Your task to perform on an android device: Add razer kraken to the cart on bestbuy Image 0: 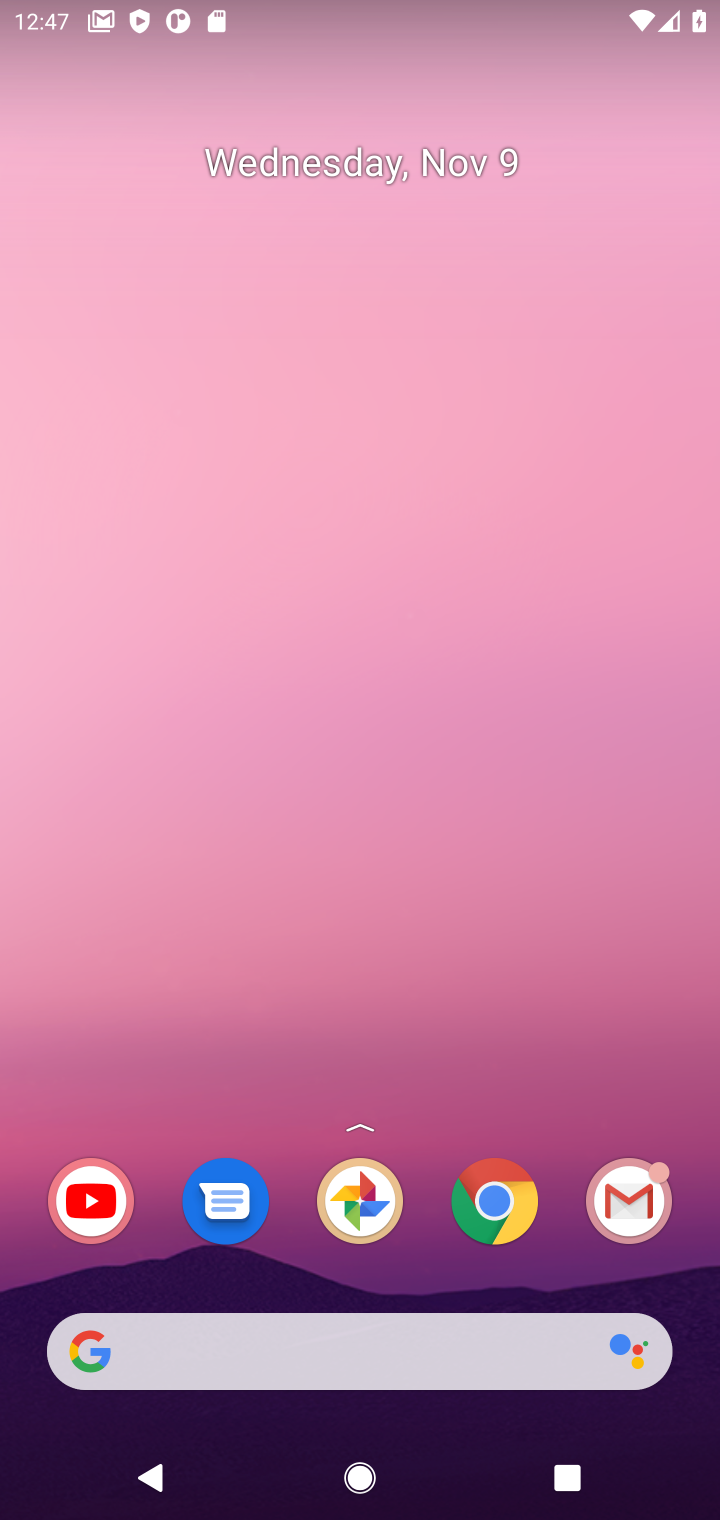
Step 0: click (382, 1352)
Your task to perform on an android device: Add razer kraken to the cart on bestbuy Image 1: 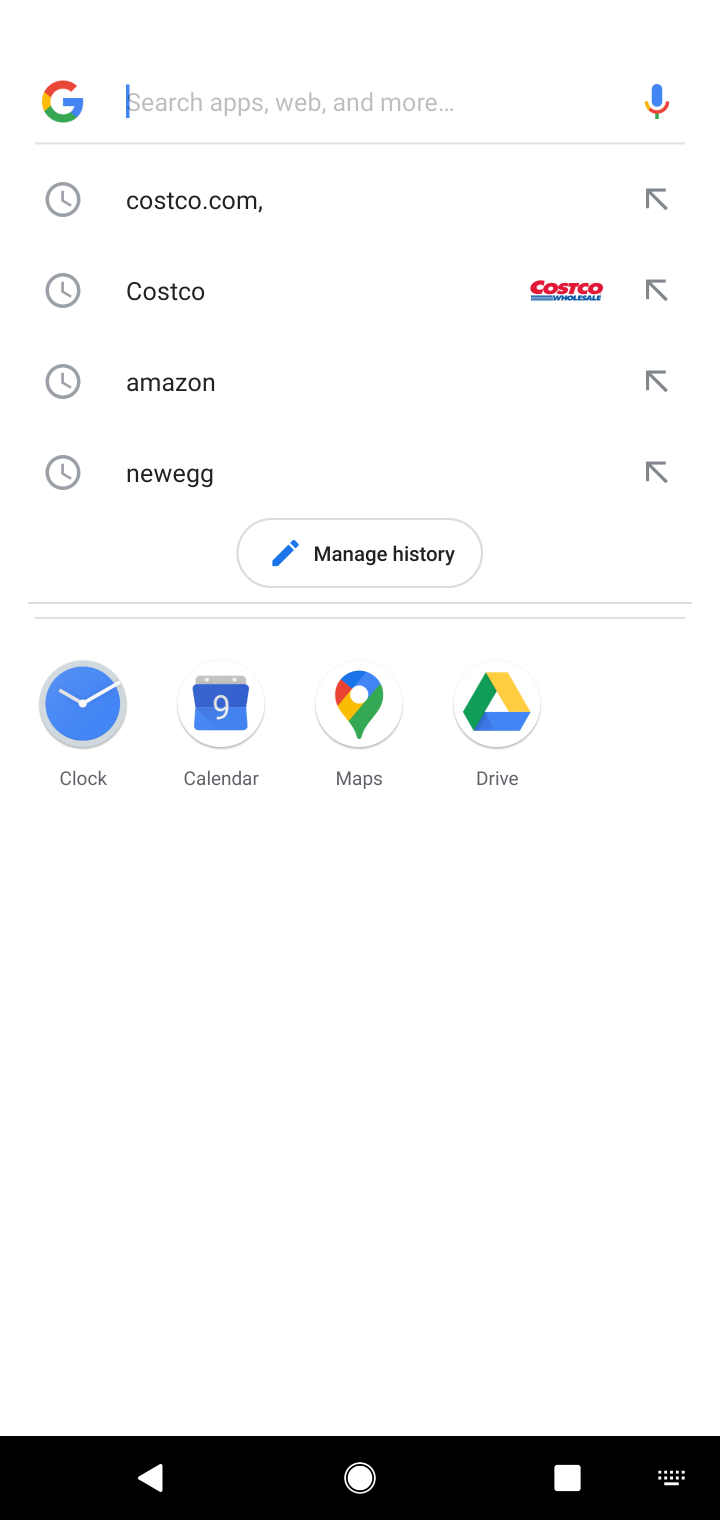
Step 1: type "bestbuy"
Your task to perform on an android device: Add razer kraken to the cart on bestbuy Image 2: 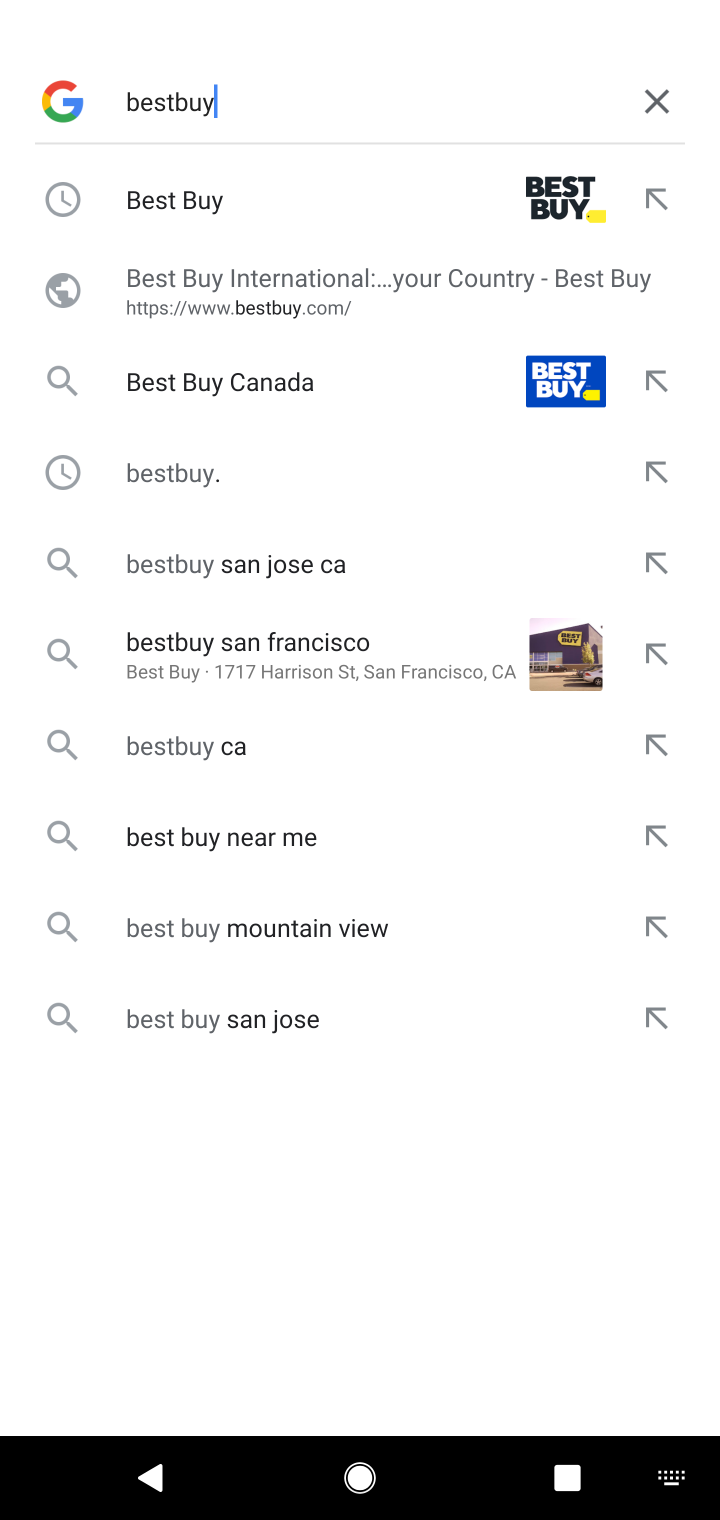
Step 2: click (297, 200)
Your task to perform on an android device: Add razer kraken to the cart on bestbuy Image 3: 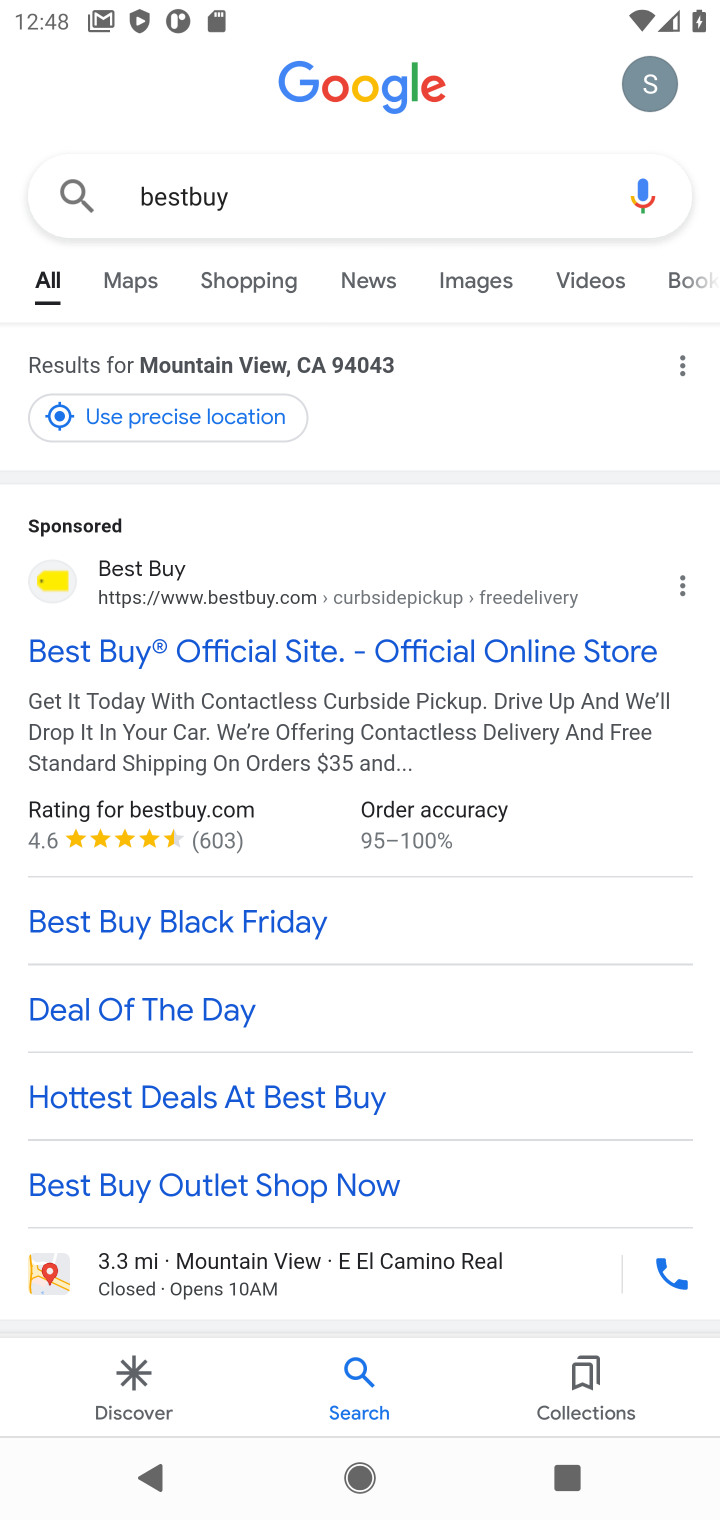
Step 3: click (133, 591)
Your task to perform on an android device: Add razer kraken to the cart on bestbuy Image 4: 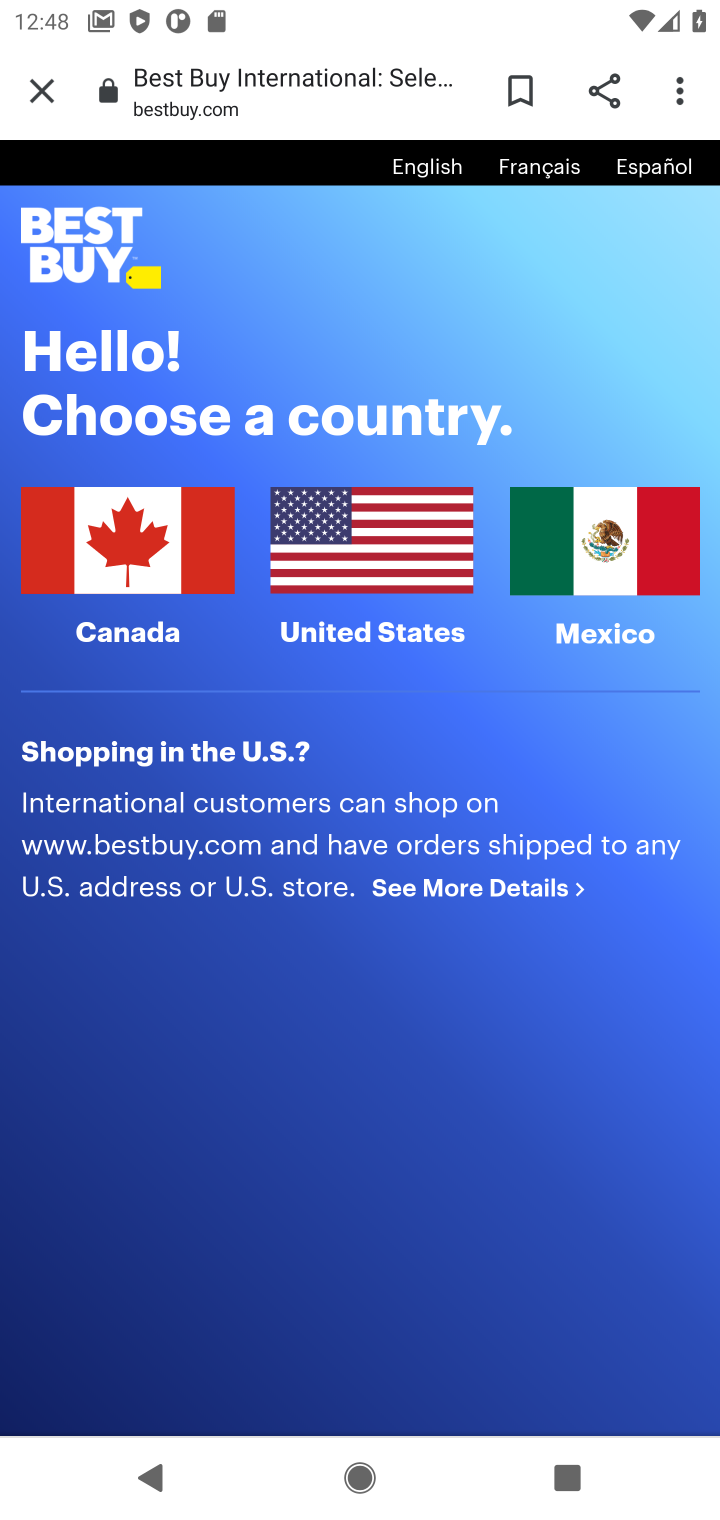
Step 4: click (351, 571)
Your task to perform on an android device: Add razer kraken to the cart on bestbuy Image 5: 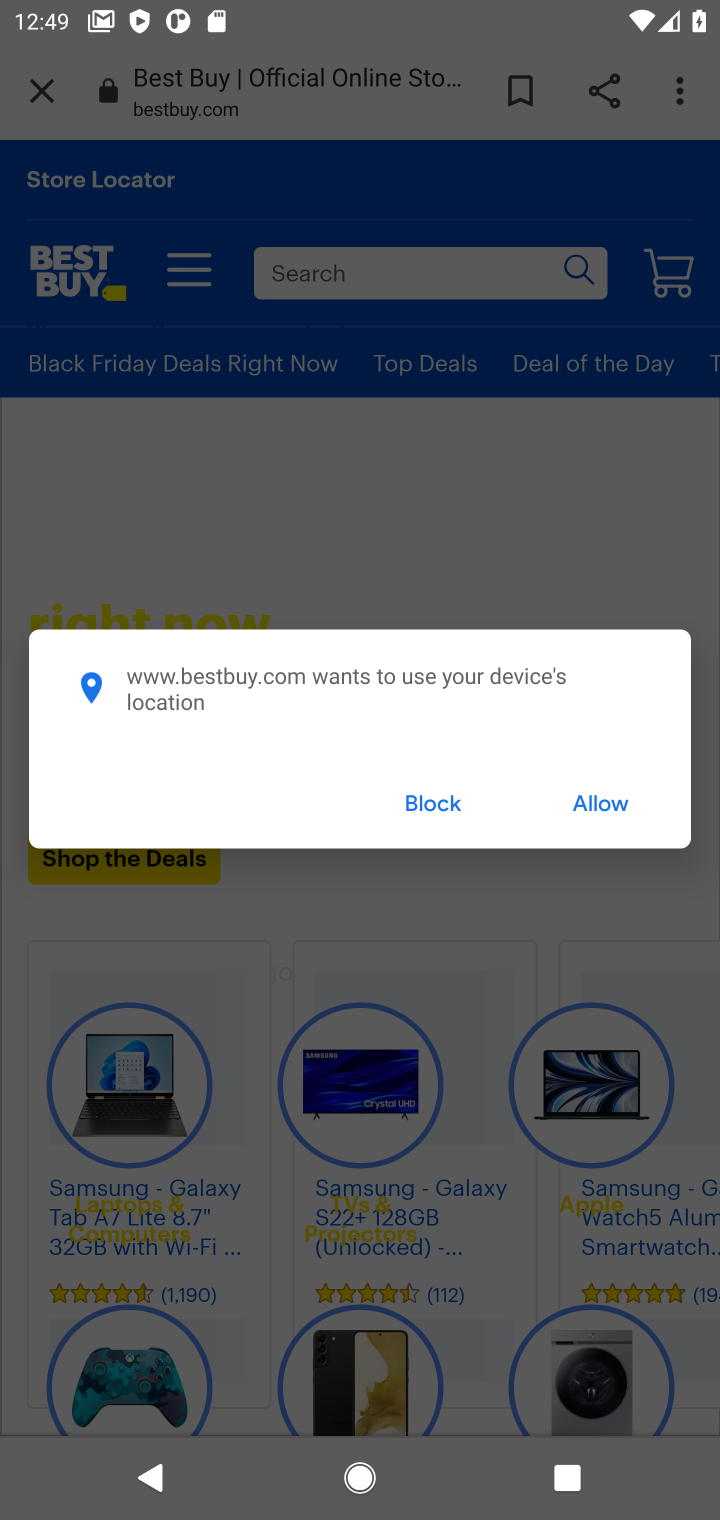
Step 5: click (394, 806)
Your task to perform on an android device: Add razer kraken to the cart on bestbuy Image 6: 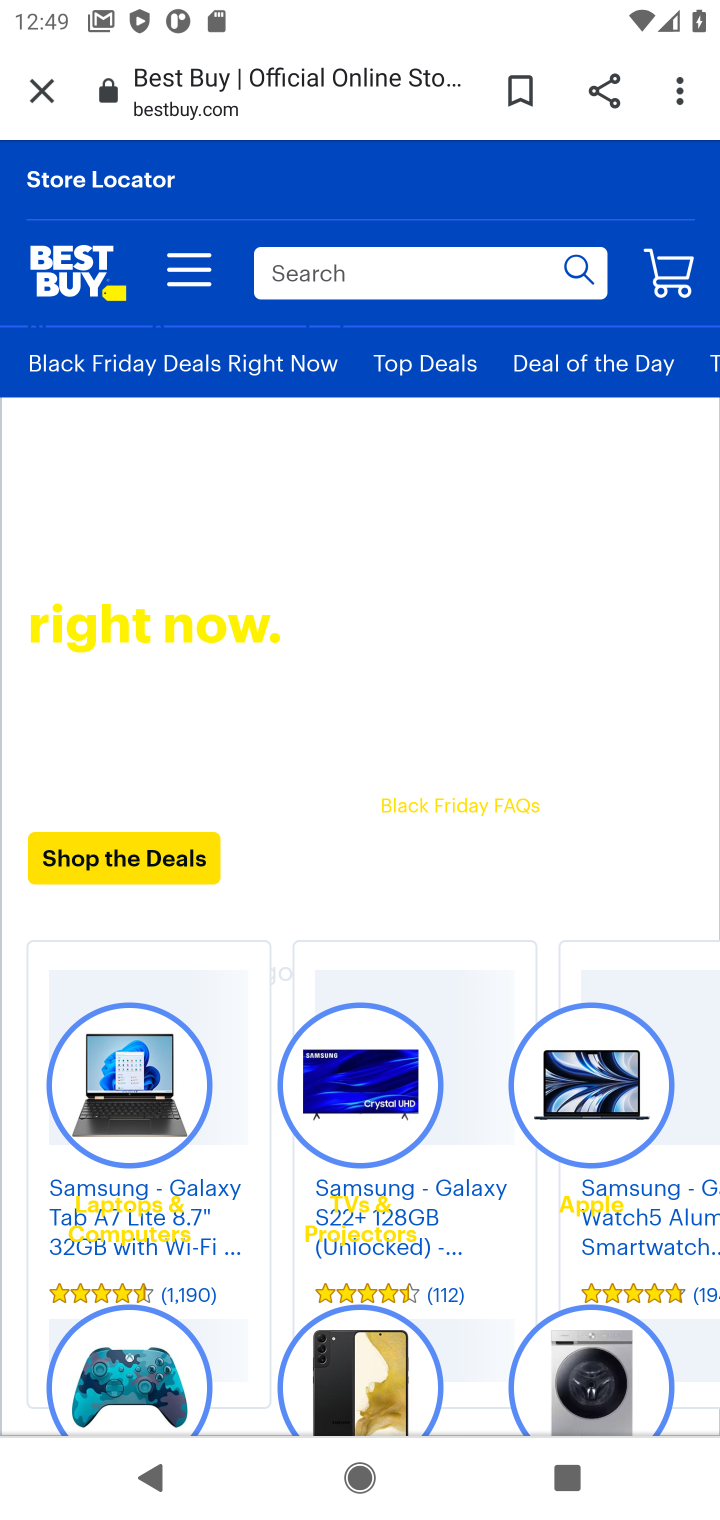
Step 6: click (419, 806)
Your task to perform on an android device: Add razer kraken to the cart on bestbuy Image 7: 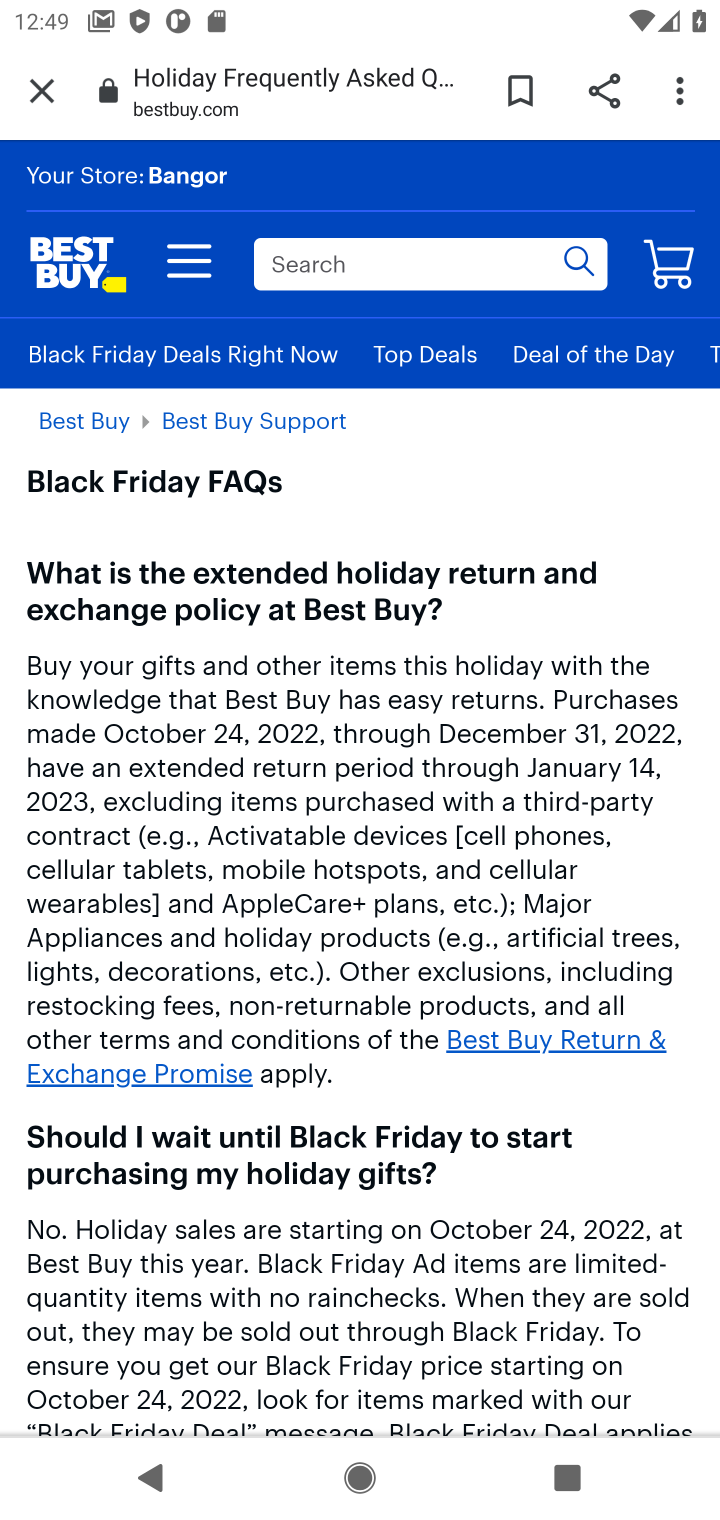
Step 7: click (318, 269)
Your task to perform on an android device: Add razer kraken to the cart on bestbuy Image 8: 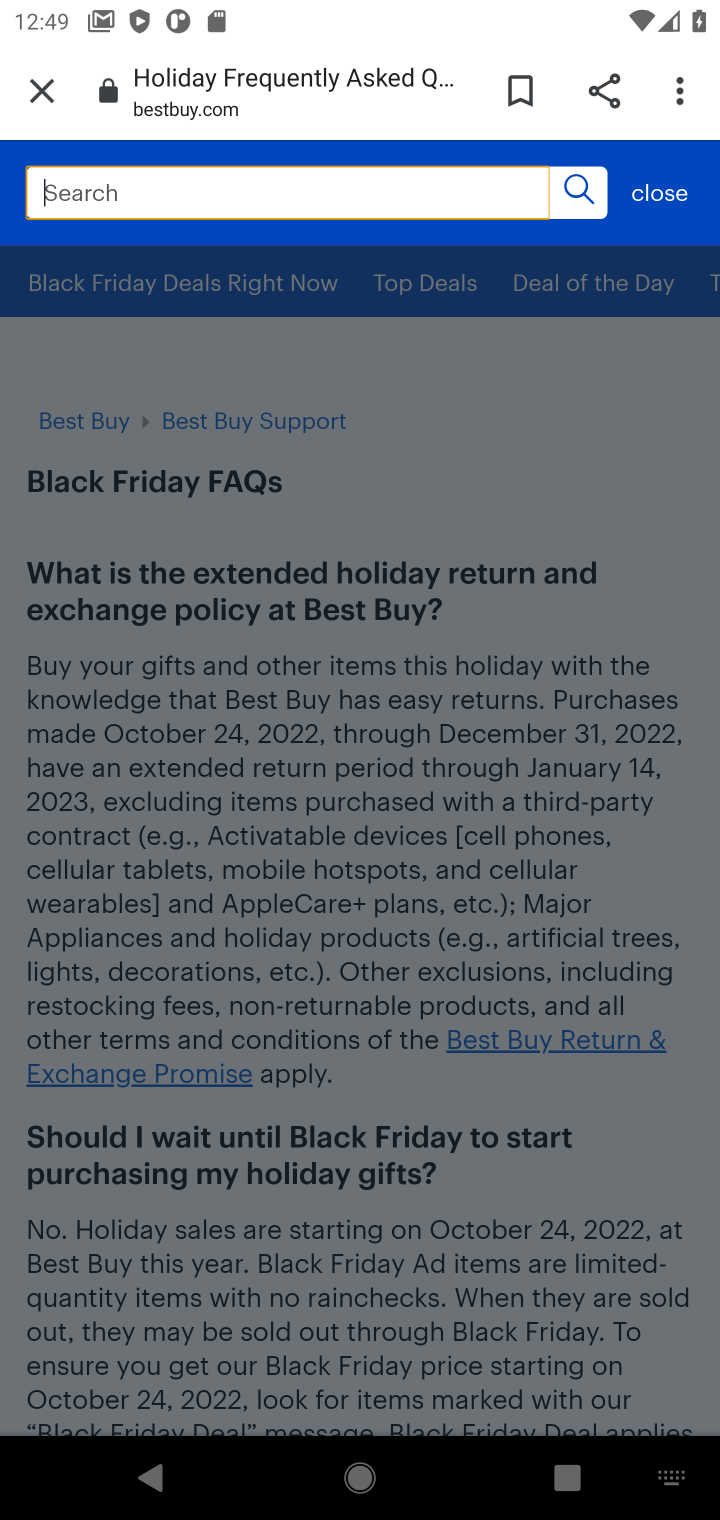
Step 8: type " razer kraken"
Your task to perform on an android device: Add razer kraken to the cart on bestbuy Image 9: 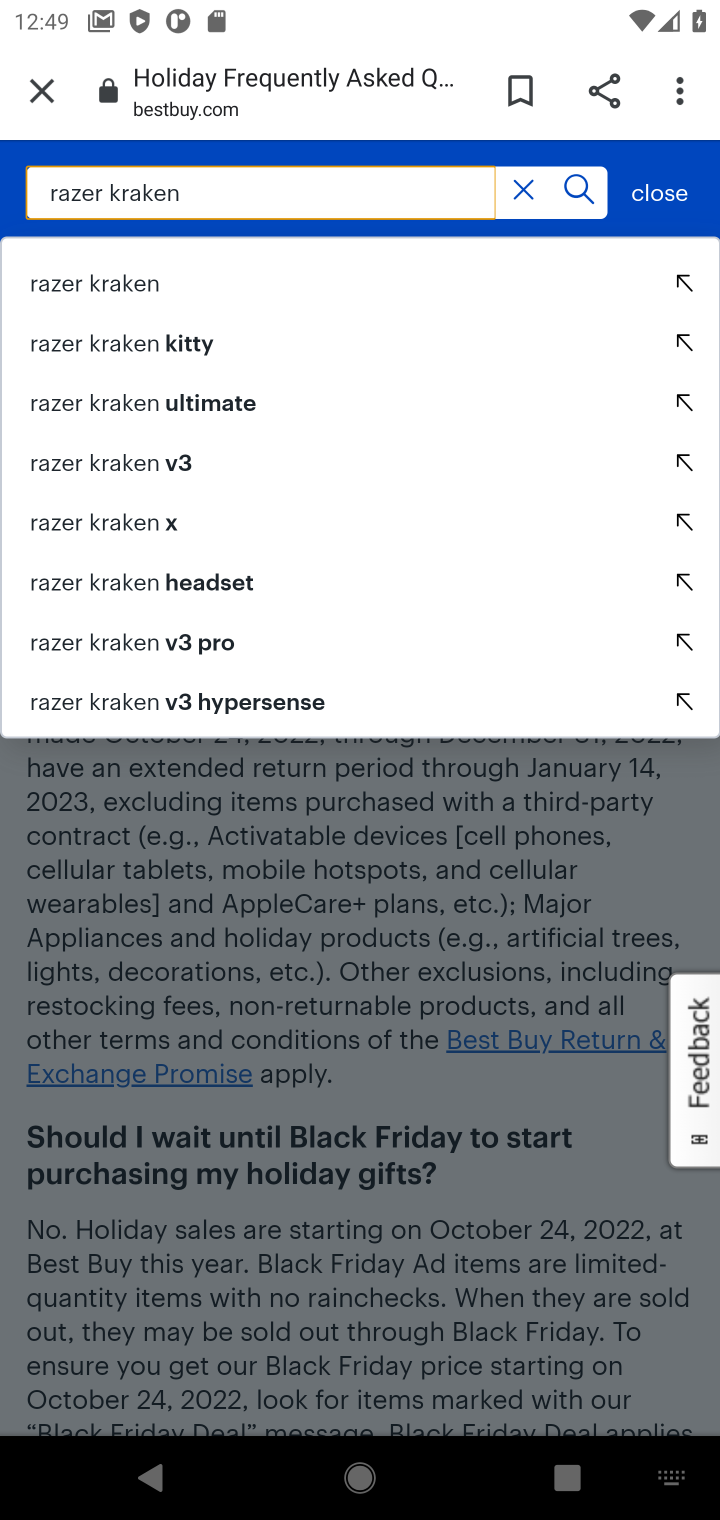
Step 9: click (127, 287)
Your task to perform on an android device: Add razer kraken to the cart on bestbuy Image 10: 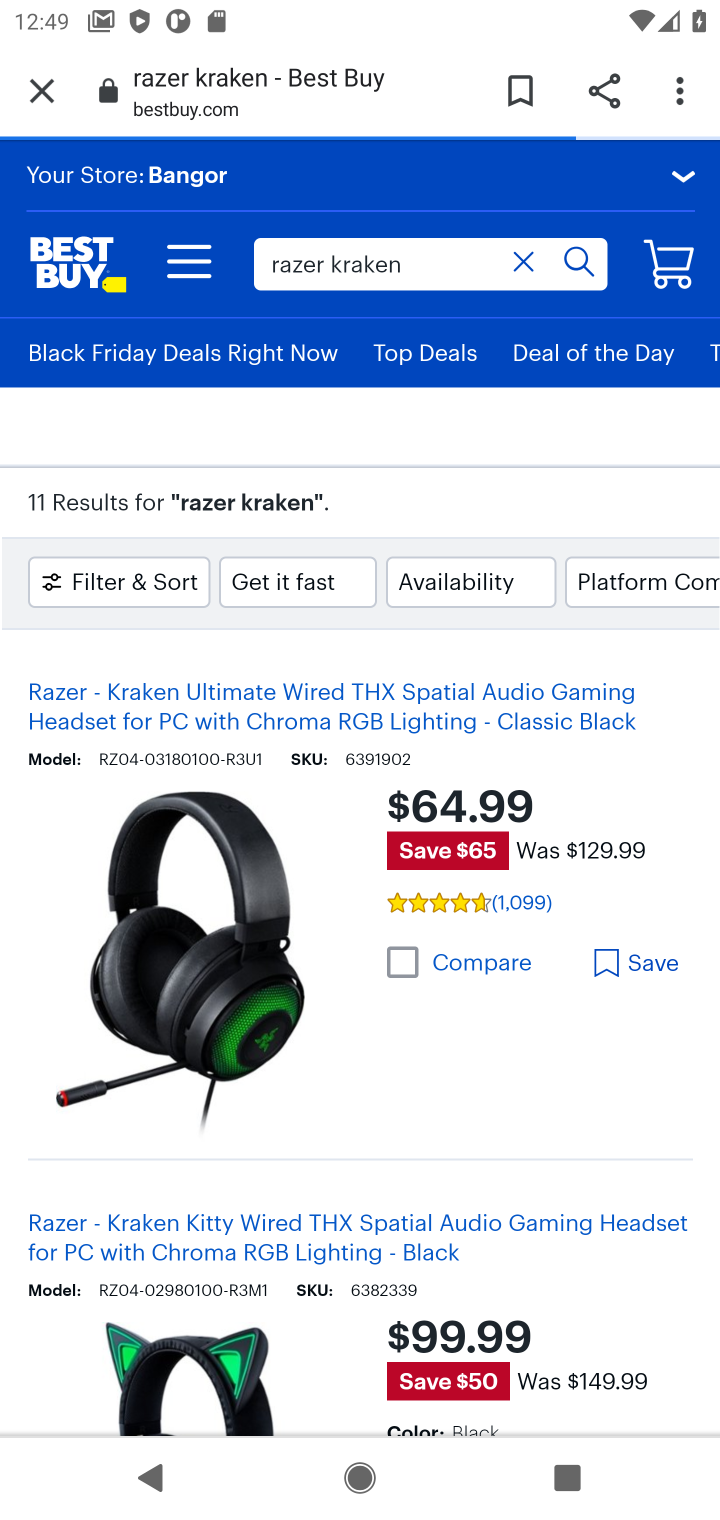
Step 10: click (403, 803)
Your task to perform on an android device: Add razer kraken to the cart on bestbuy Image 11: 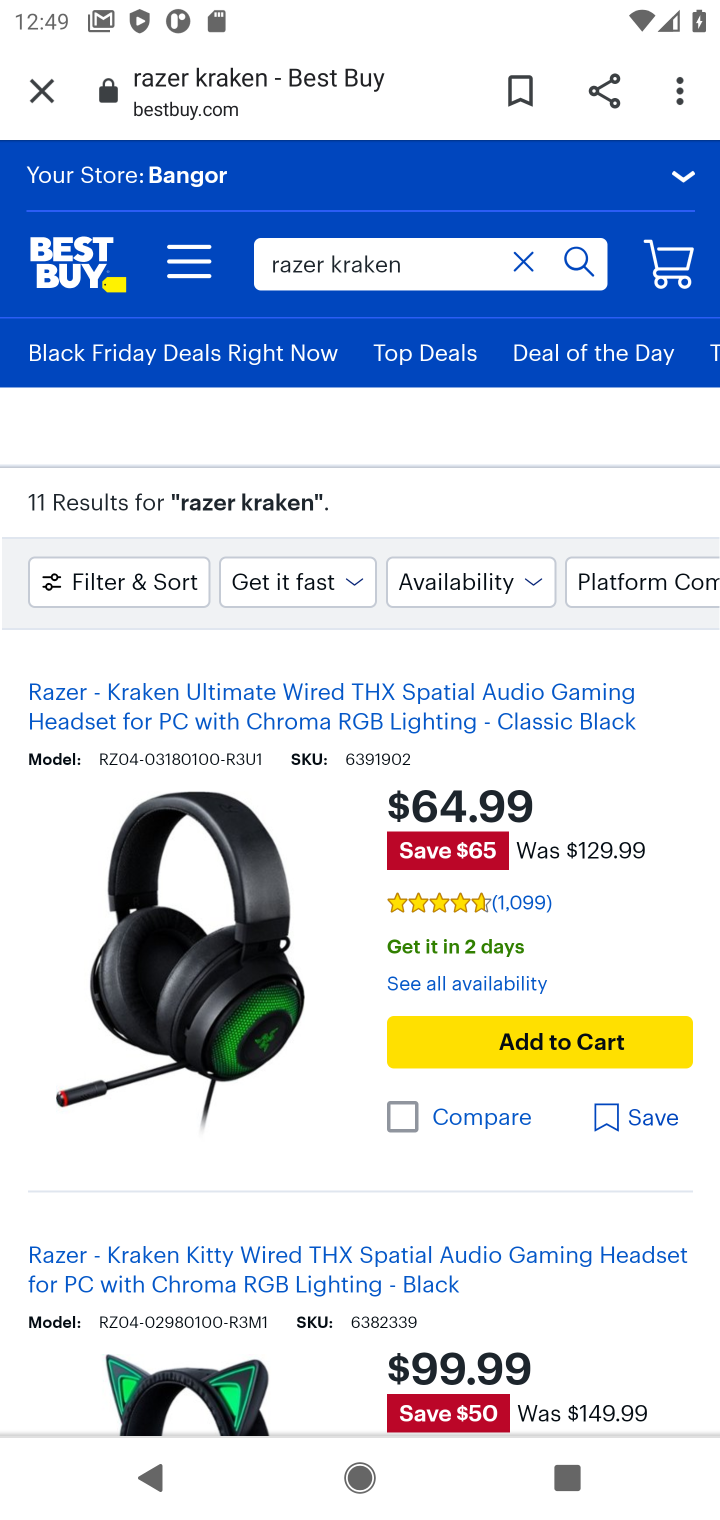
Step 11: click (510, 1037)
Your task to perform on an android device: Add razer kraken to the cart on bestbuy Image 12: 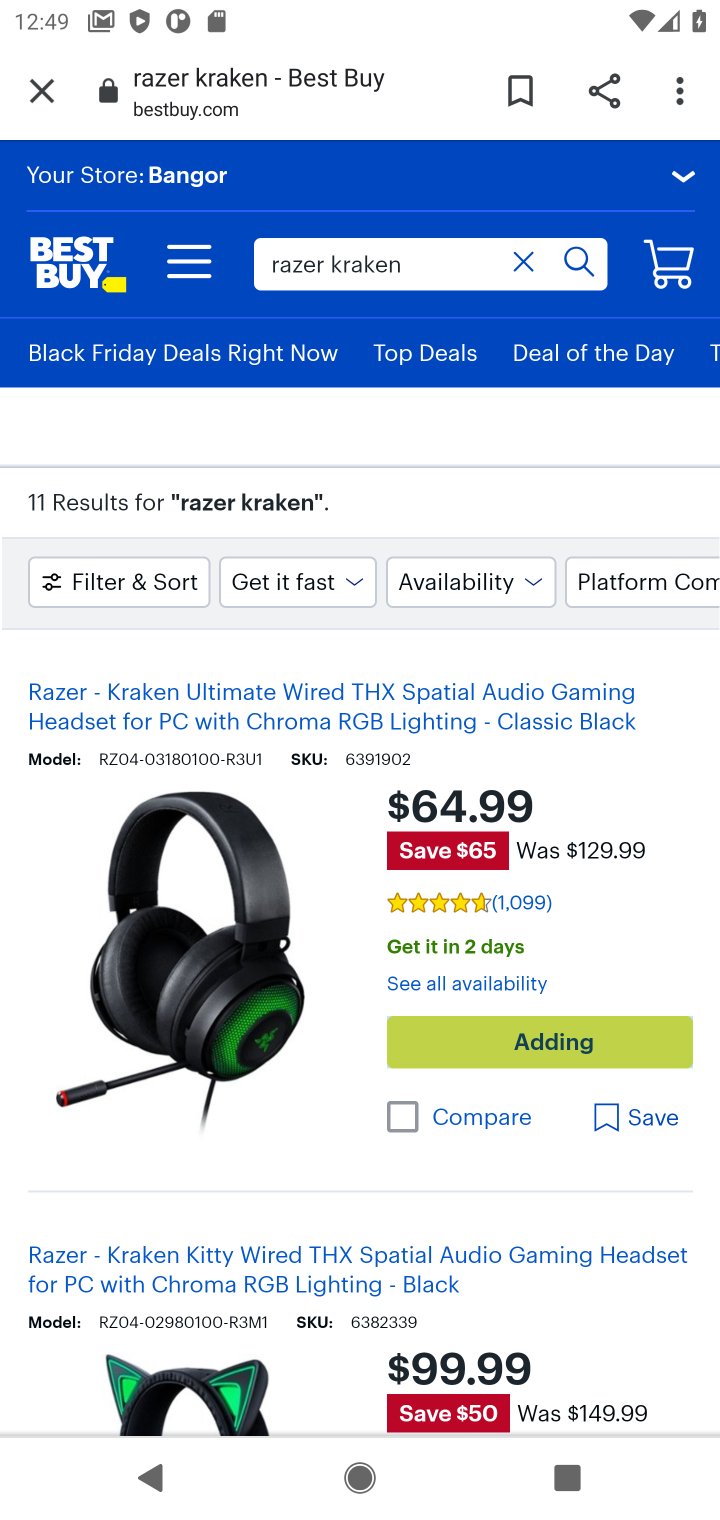
Step 12: click (529, 1050)
Your task to perform on an android device: Add razer kraken to the cart on bestbuy Image 13: 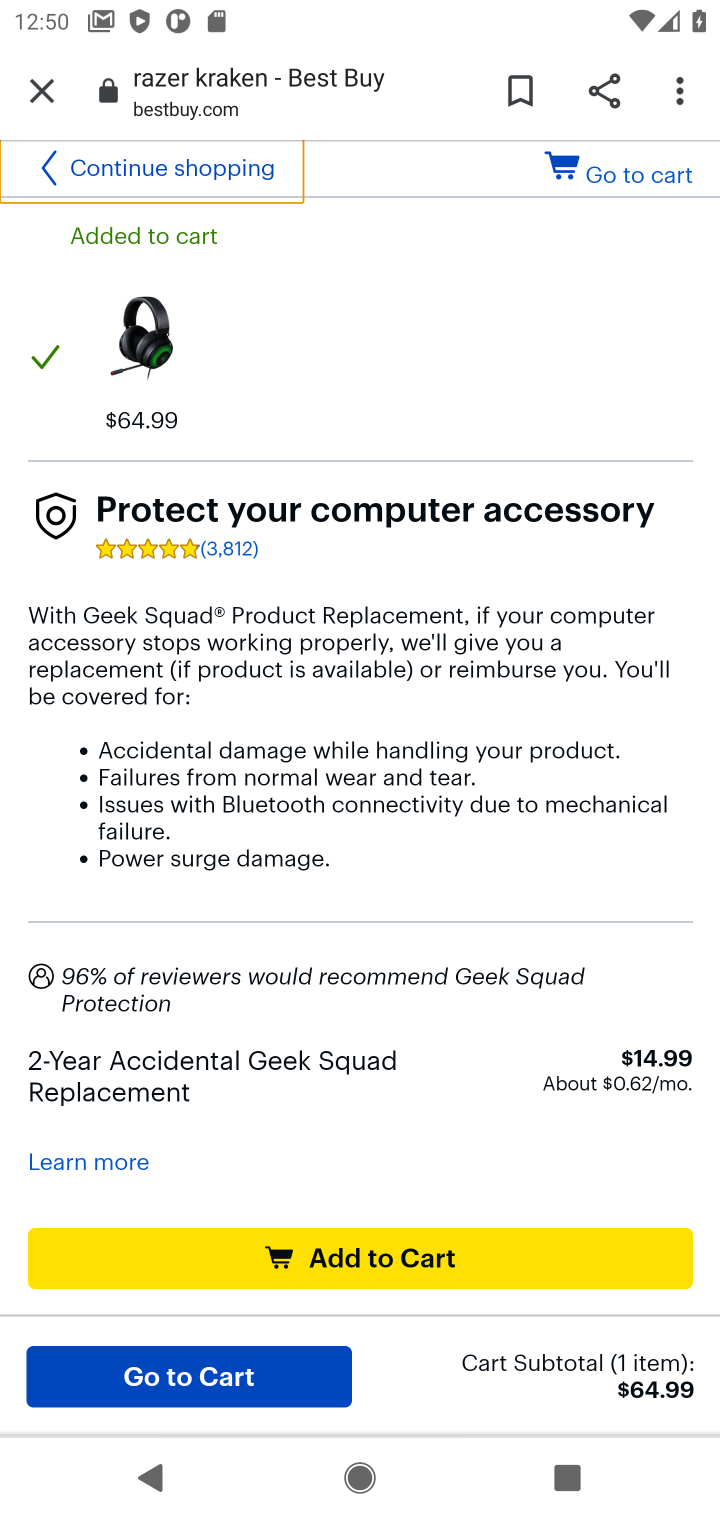
Step 13: click (348, 1266)
Your task to perform on an android device: Add razer kraken to the cart on bestbuy Image 14: 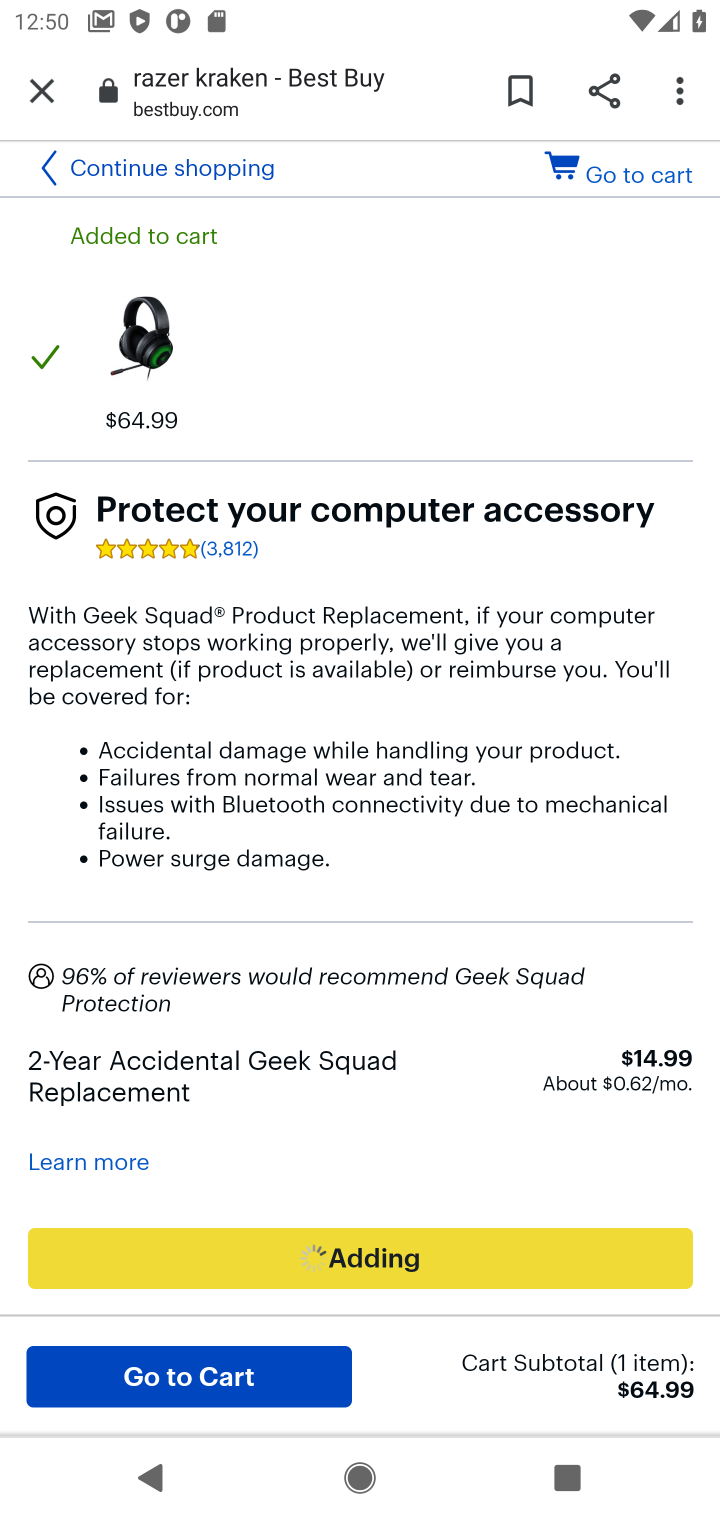
Step 14: task complete